Your task to perform on an android device: toggle improve location accuracy Image 0: 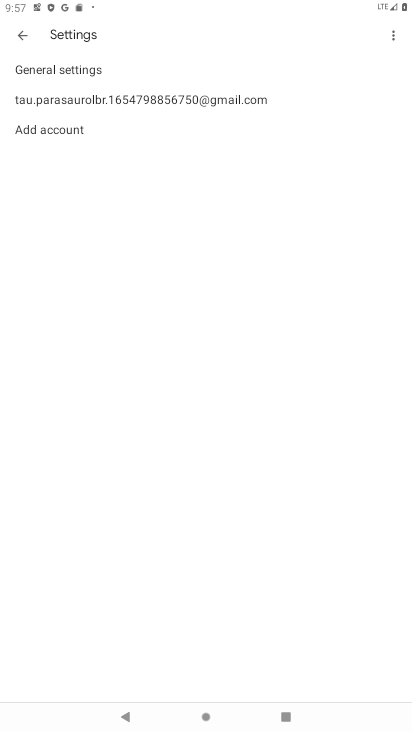
Step 0: press home button
Your task to perform on an android device: toggle improve location accuracy Image 1: 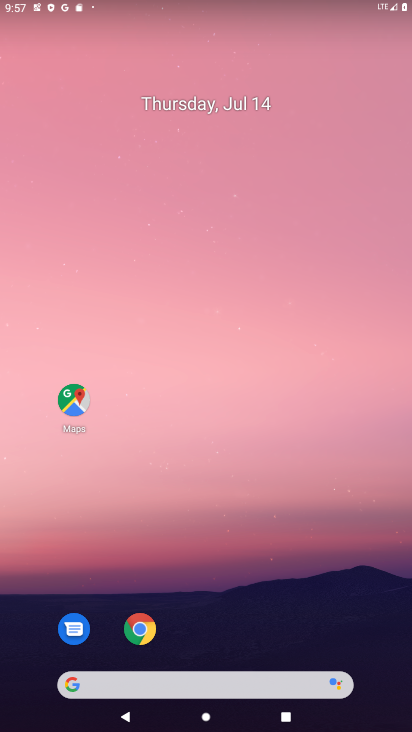
Step 1: drag from (11, 631) to (297, 108)
Your task to perform on an android device: toggle improve location accuracy Image 2: 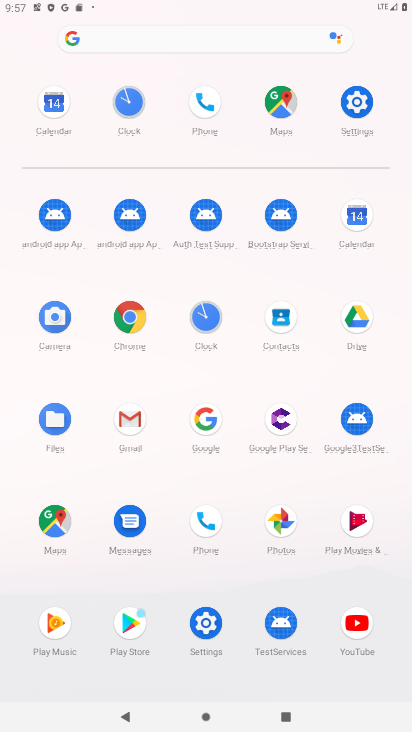
Step 2: click (356, 94)
Your task to perform on an android device: toggle improve location accuracy Image 3: 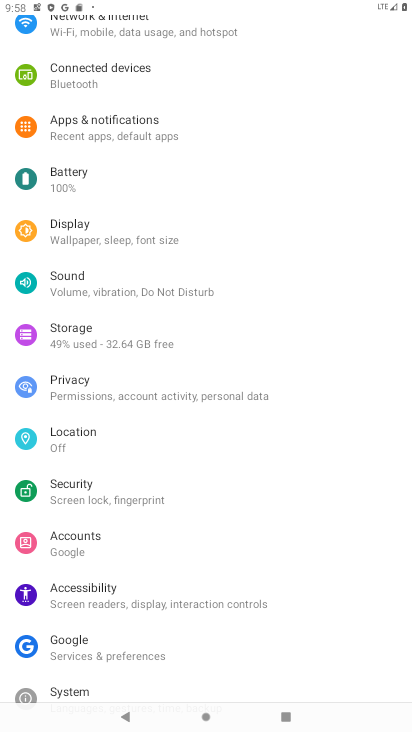
Step 3: click (67, 428)
Your task to perform on an android device: toggle improve location accuracy Image 4: 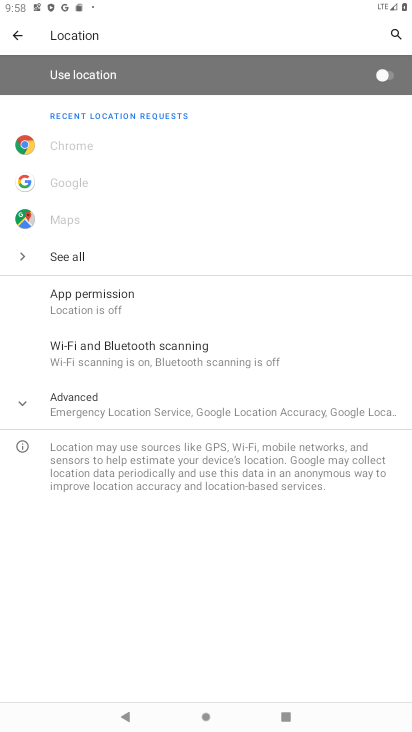
Step 4: click (196, 405)
Your task to perform on an android device: toggle improve location accuracy Image 5: 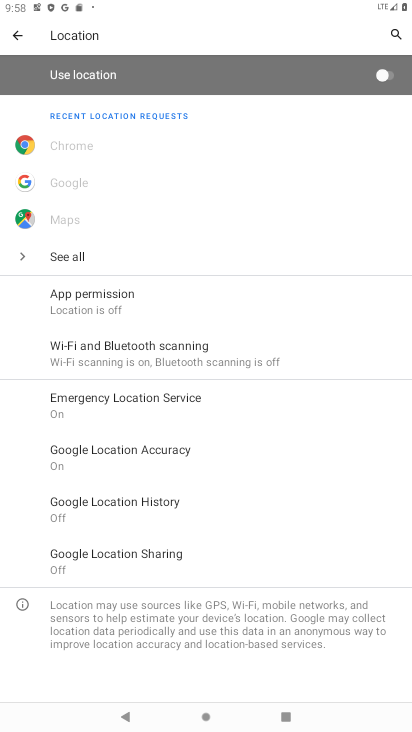
Step 5: click (181, 452)
Your task to perform on an android device: toggle improve location accuracy Image 6: 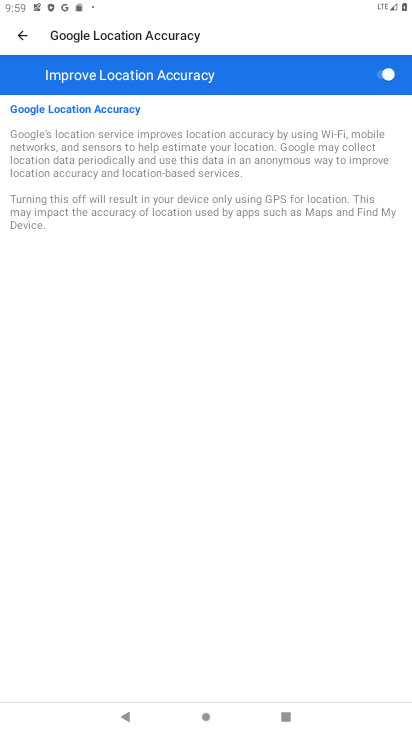
Step 6: click (387, 74)
Your task to perform on an android device: toggle improve location accuracy Image 7: 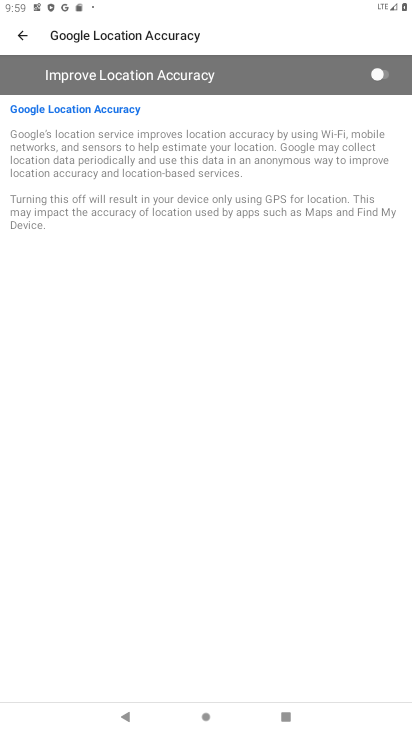
Step 7: task complete